Your task to perform on an android device: Go to Android settings Image 0: 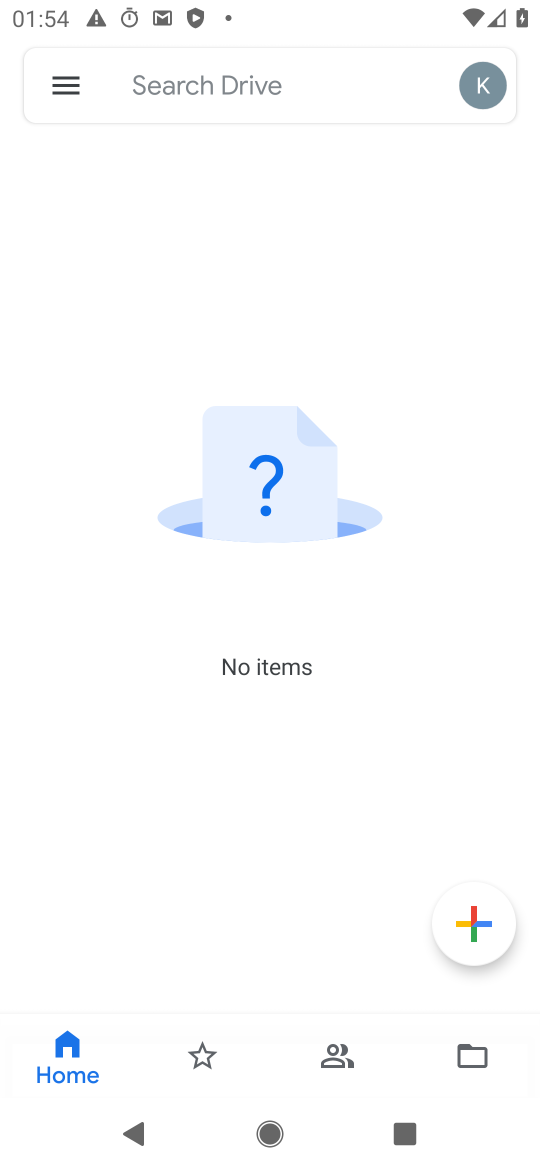
Step 0: press home button
Your task to perform on an android device: Go to Android settings Image 1: 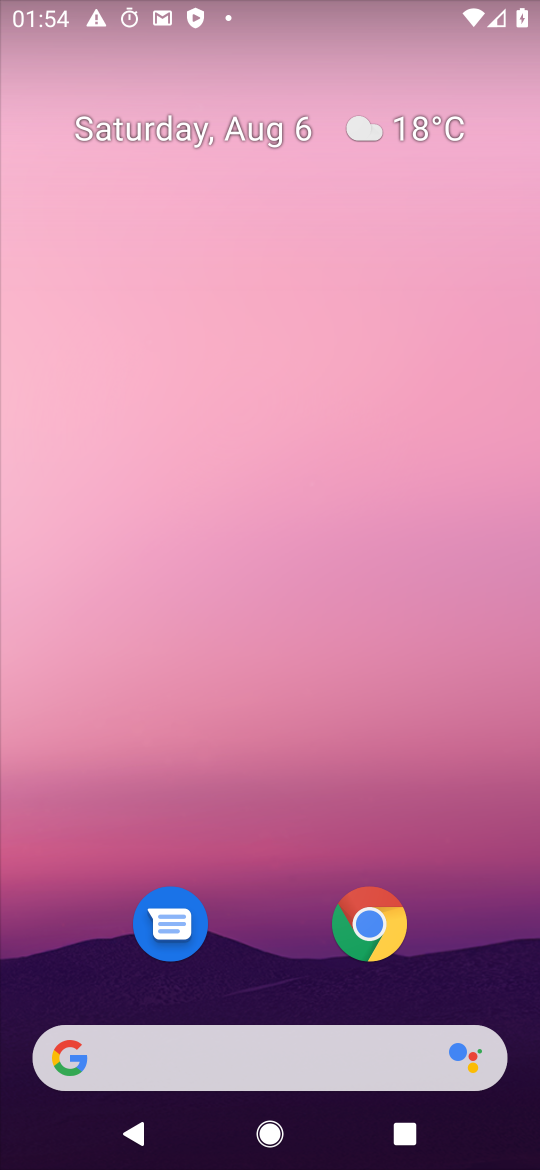
Step 1: drag from (243, 1068) to (210, 76)
Your task to perform on an android device: Go to Android settings Image 2: 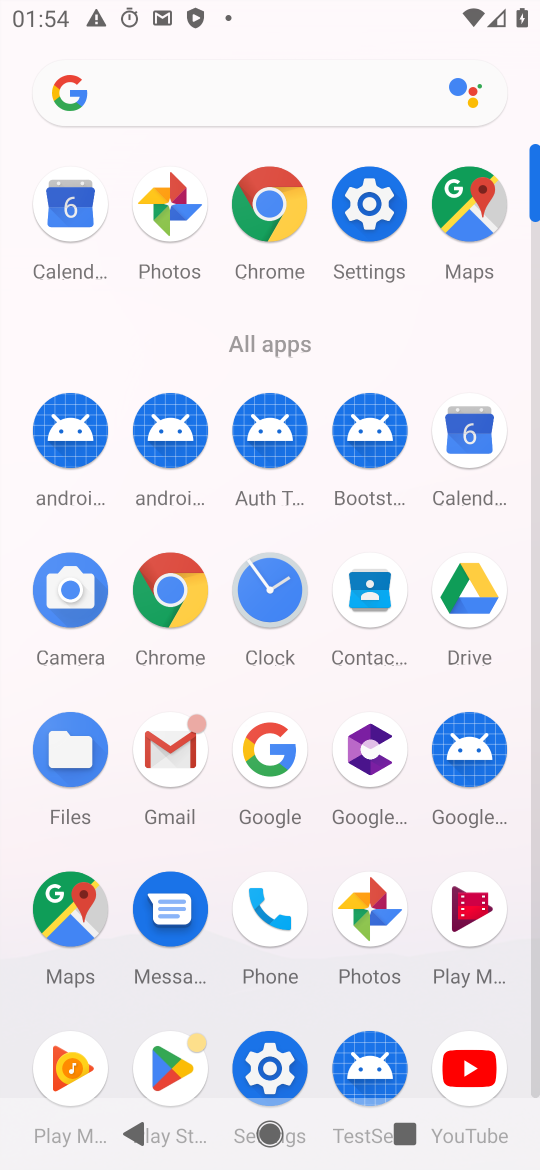
Step 2: click (363, 207)
Your task to perform on an android device: Go to Android settings Image 3: 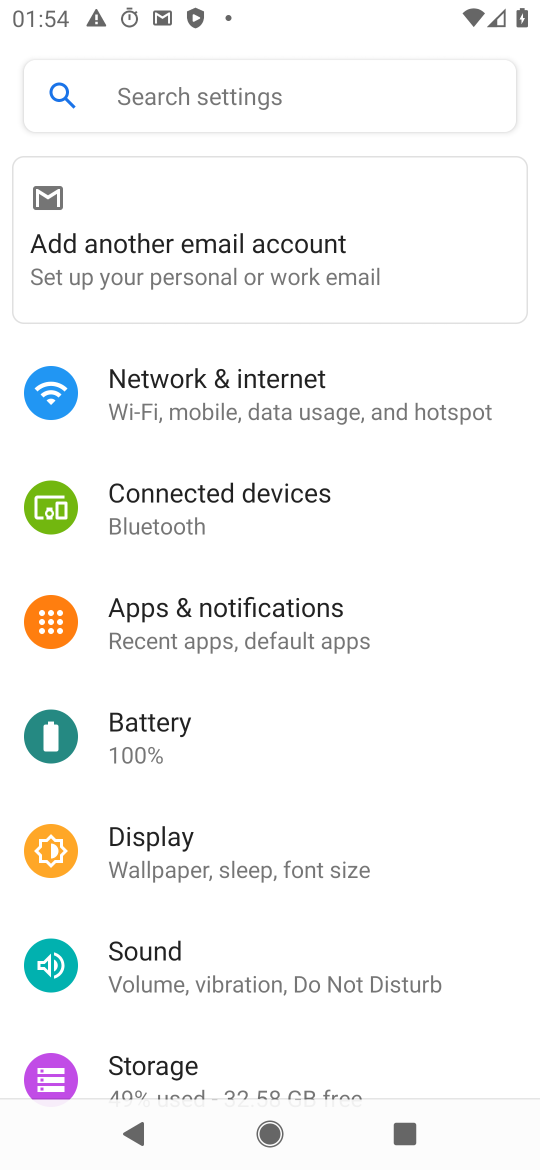
Step 3: drag from (474, 1059) to (487, 177)
Your task to perform on an android device: Go to Android settings Image 4: 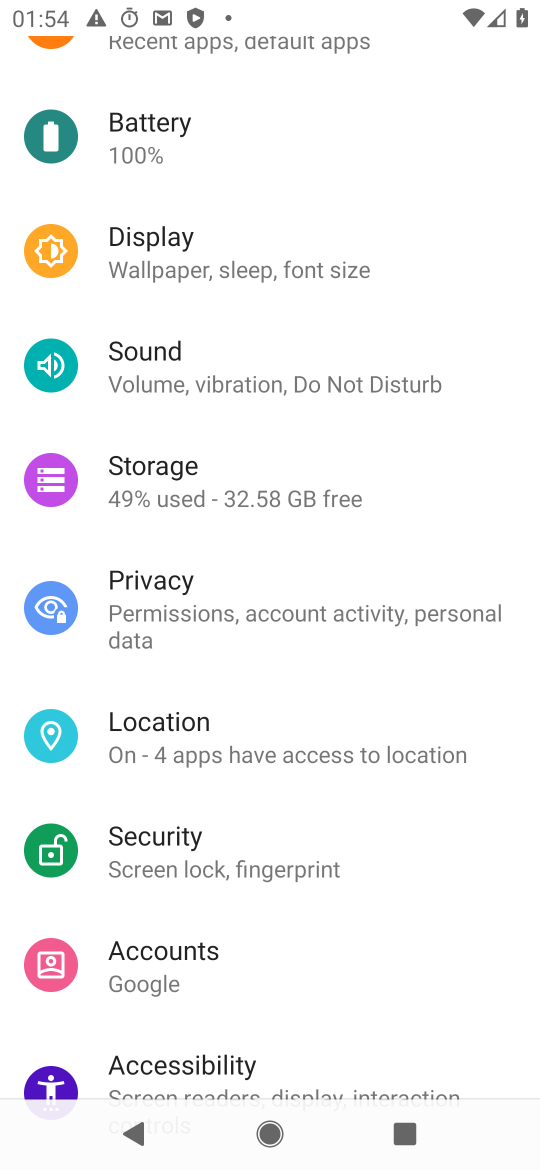
Step 4: drag from (445, 943) to (466, 237)
Your task to perform on an android device: Go to Android settings Image 5: 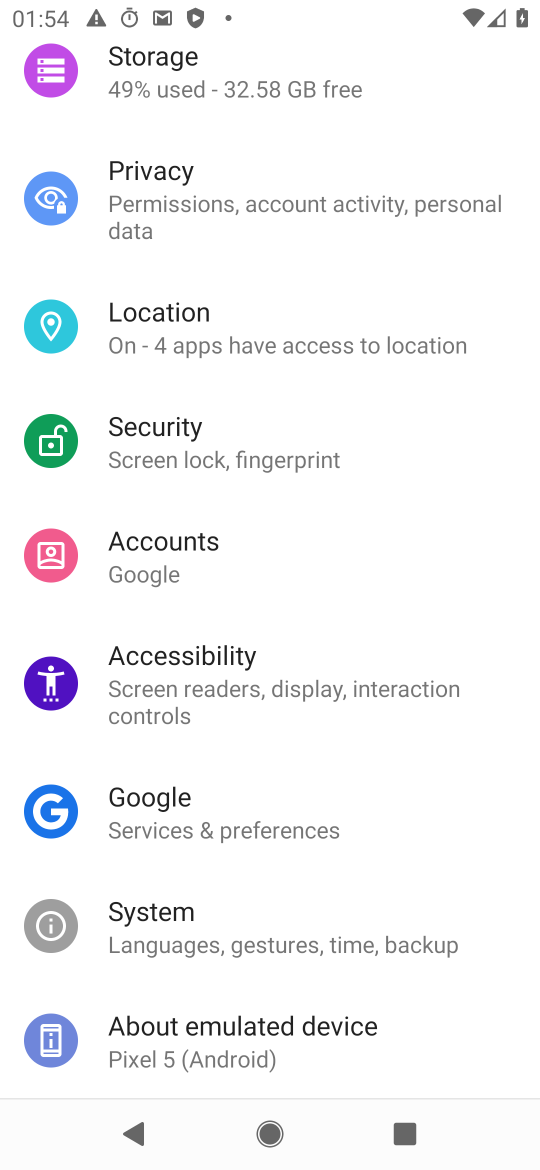
Step 5: click (235, 1032)
Your task to perform on an android device: Go to Android settings Image 6: 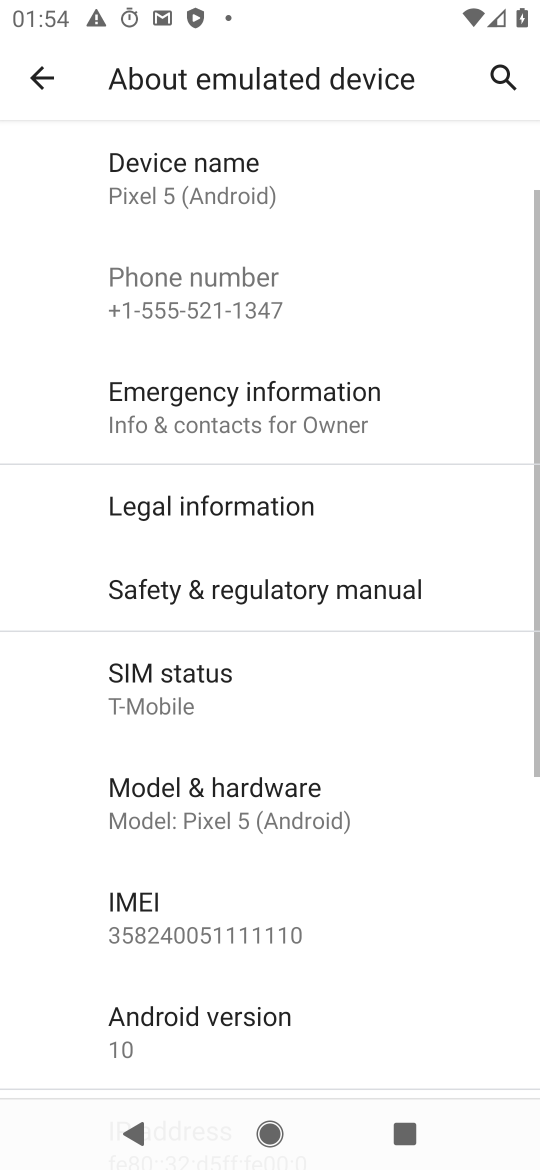
Step 6: task complete